Your task to perform on an android device: Do I have any events tomorrow? Image 0: 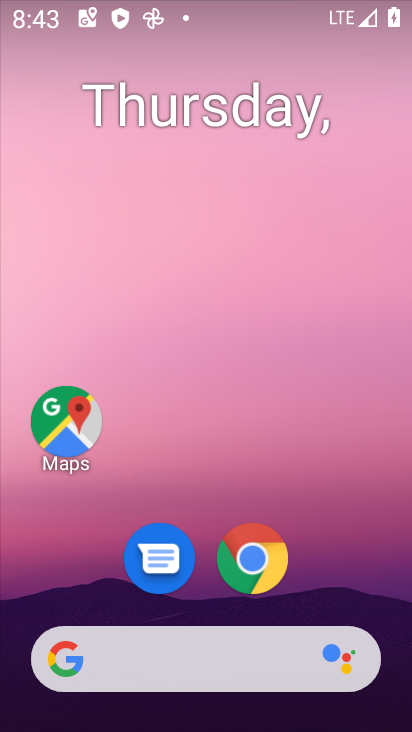
Step 0: drag from (162, 631) to (189, 167)
Your task to perform on an android device: Do I have any events tomorrow? Image 1: 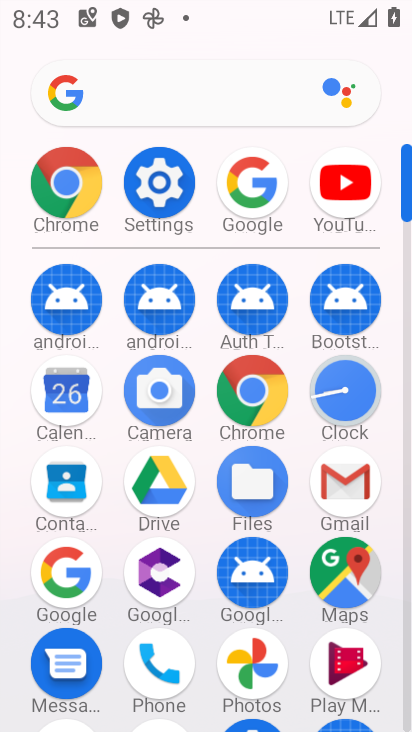
Step 1: click (58, 394)
Your task to perform on an android device: Do I have any events tomorrow? Image 2: 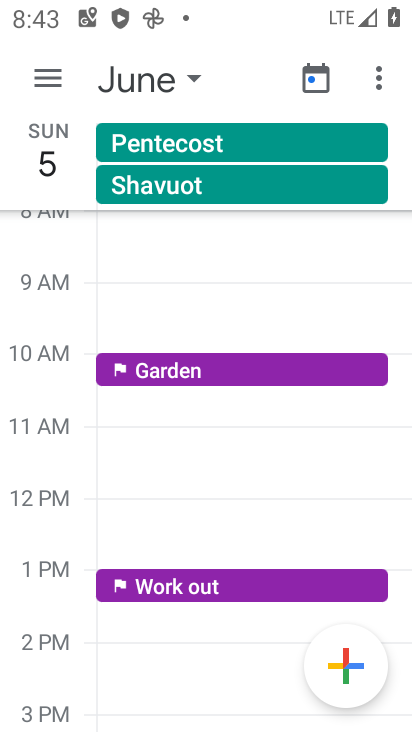
Step 2: click (154, 78)
Your task to perform on an android device: Do I have any events tomorrow? Image 3: 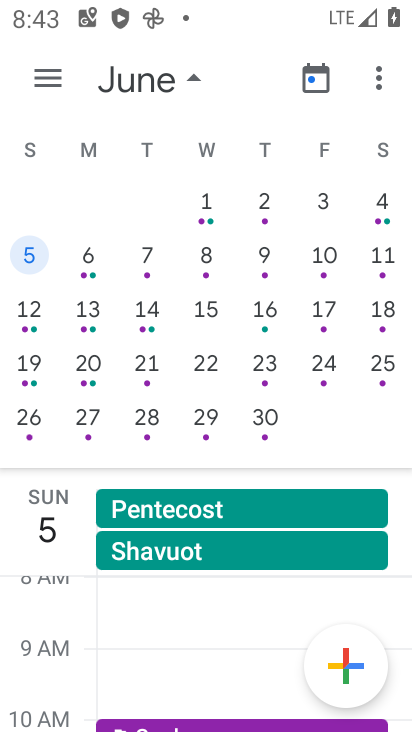
Step 3: drag from (6, 293) to (411, 171)
Your task to perform on an android device: Do I have any events tomorrow? Image 4: 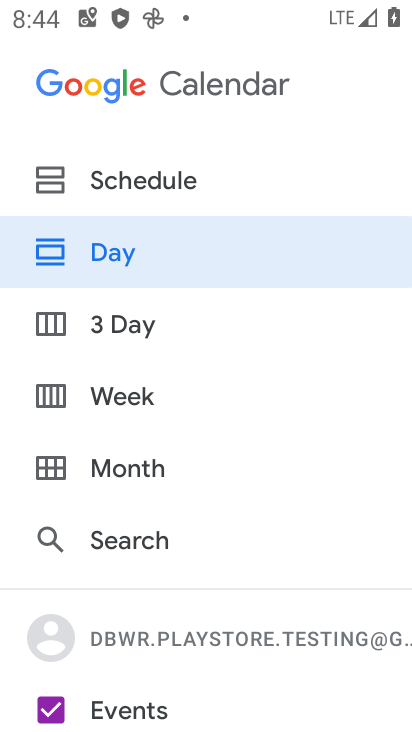
Step 4: click (396, 122)
Your task to perform on an android device: Do I have any events tomorrow? Image 5: 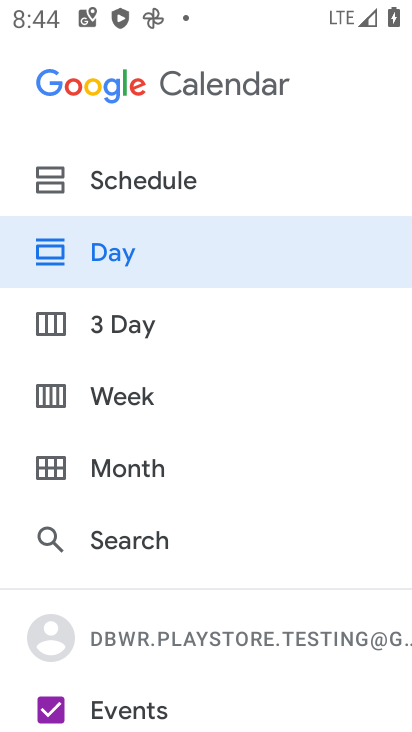
Step 5: click (188, 188)
Your task to perform on an android device: Do I have any events tomorrow? Image 6: 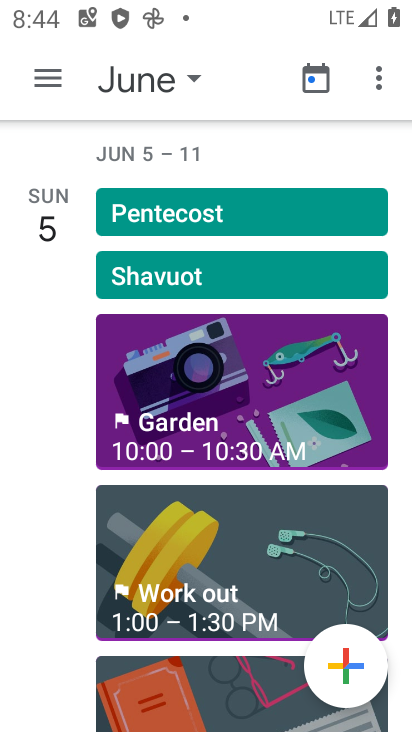
Step 6: click (157, 88)
Your task to perform on an android device: Do I have any events tomorrow? Image 7: 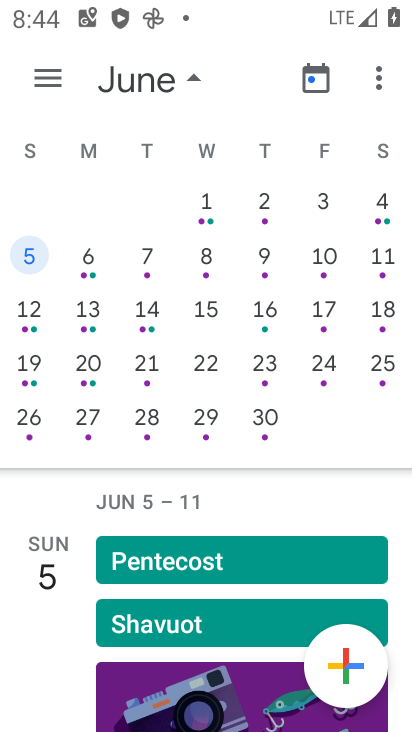
Step 7: drag from (67, 212) to (395, 255)
Your task to perform on an android device: Do I have any events tomorrow? Image 8: 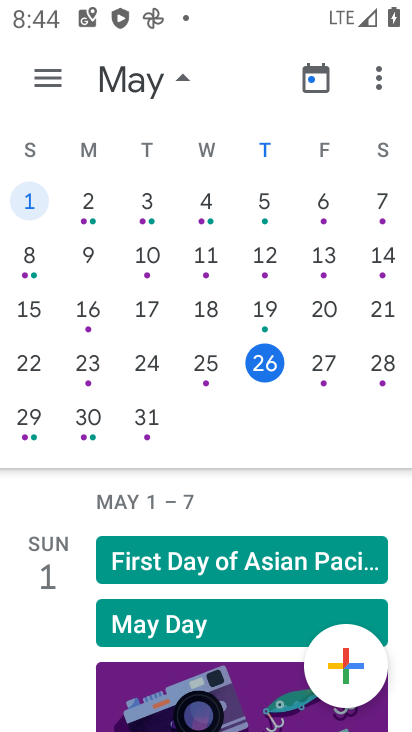
Step 8: click (320, 368)
Your task to perform on an android device: Do I have any events tomorrow? Image 9: 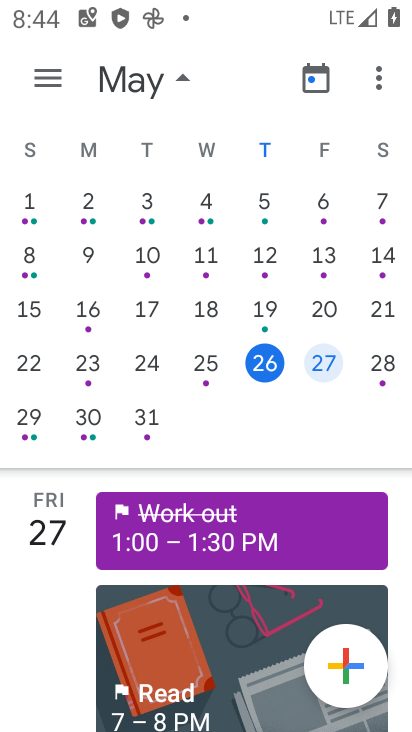
Step 9: task complete